Your task to perform on an android device: turn on javascript in the chrome app Image 0: 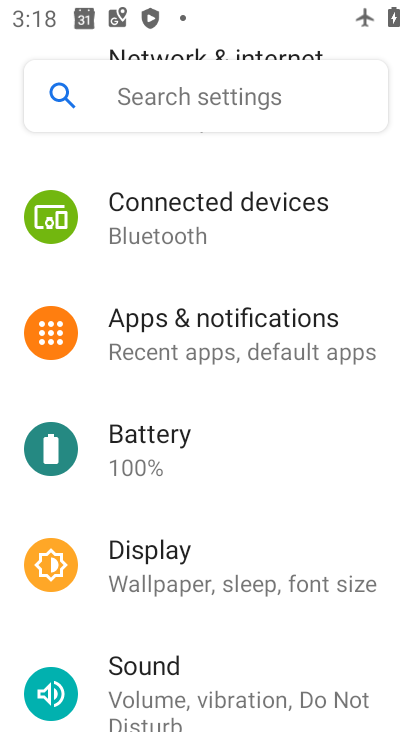
Step 0: press home button
Your task to perform on an android device: turn on javascript in the chrome app Image 1: 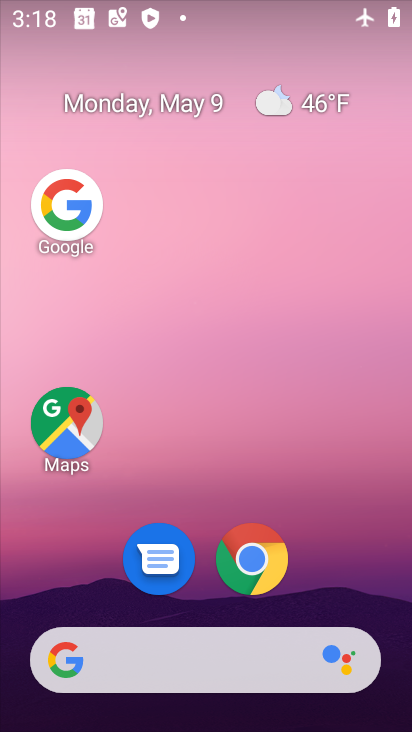
Step 1: click (256, 556)
Your task to perform on an android device: turn on javascript in the chrome app Image 2: 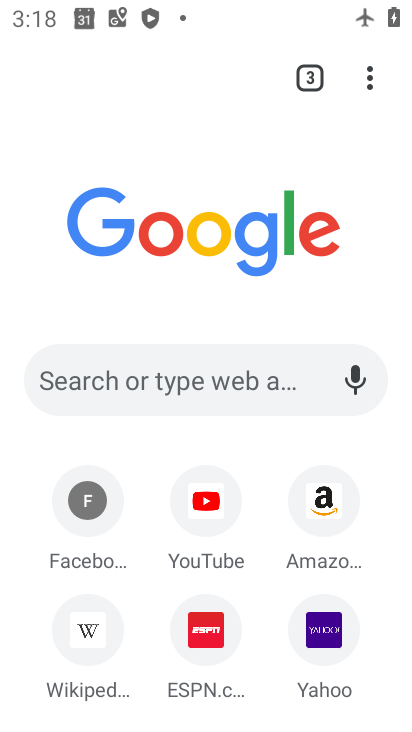
Step 2: click (372, 74)
Your task to perform on an android device: turn on javascript in the chrome app Image 3: 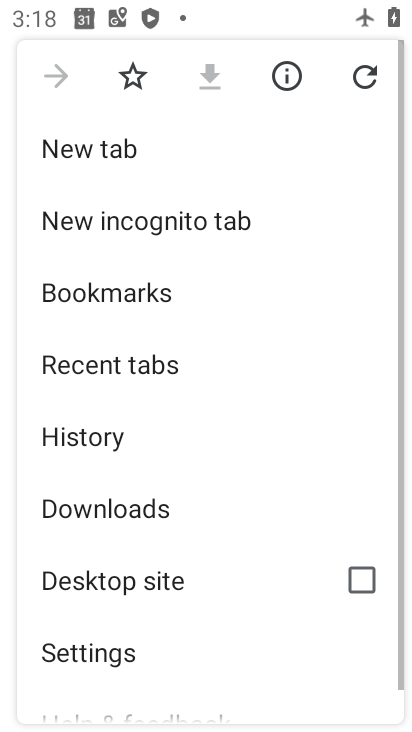
Step 3: drag from (238, 541) to (254, 189)
Your task to perform on an android device: turn on javascript in the chrome app Image 4: 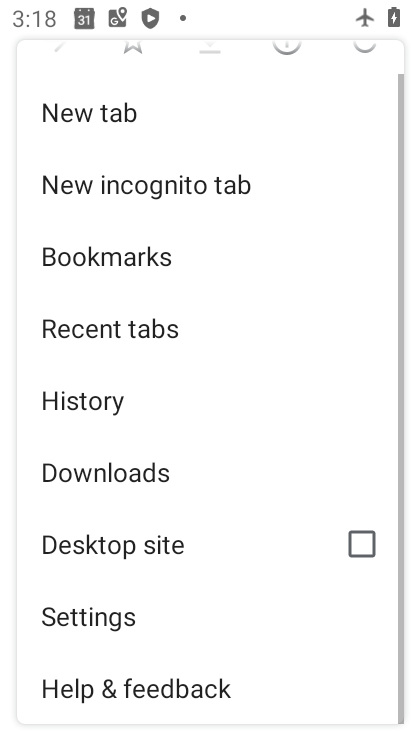
Step 4: click (165, 604)
Your task to perform on an android device: turn on javascript in the chrome app Image 5: 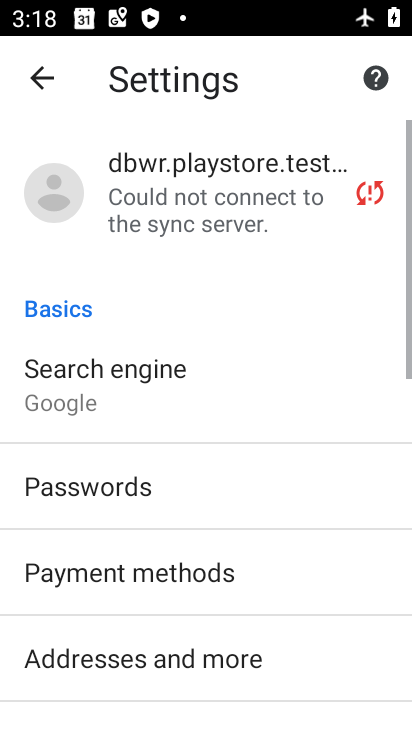
Step 5: drag from (191, 558) to (239, 118)
Your task to perform on an android device: turn on javascript in the chrome app Image 6: 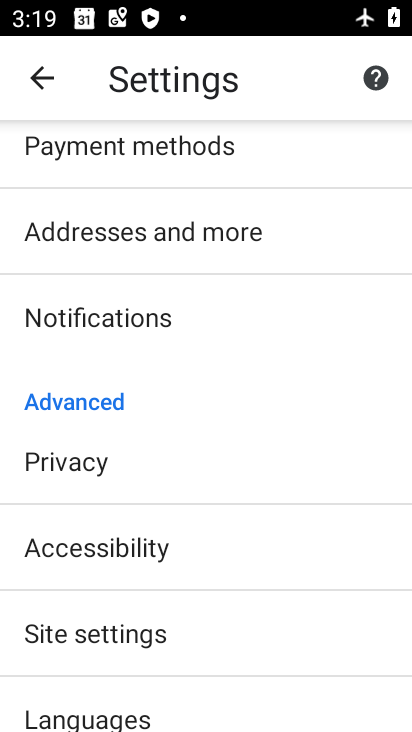
Step 6: click (240, 650)
Your task to perform on an android device: turn on javascript in the chrome app Image 7: 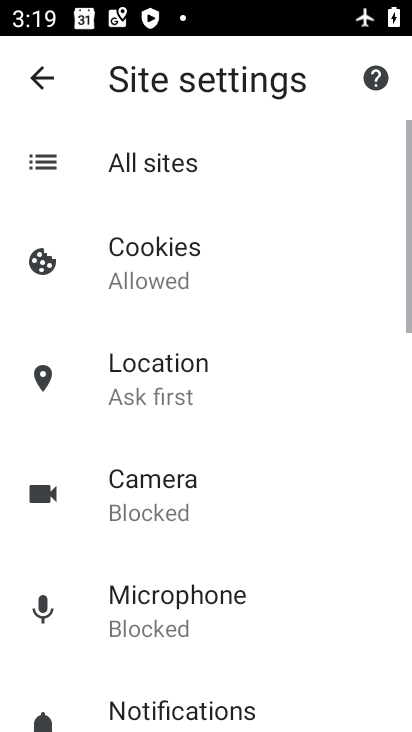
Step 7: drag from (240, 650) to (318, 255)
Your task to perform on an android device: turn on javascript in the chrome app Image 8: 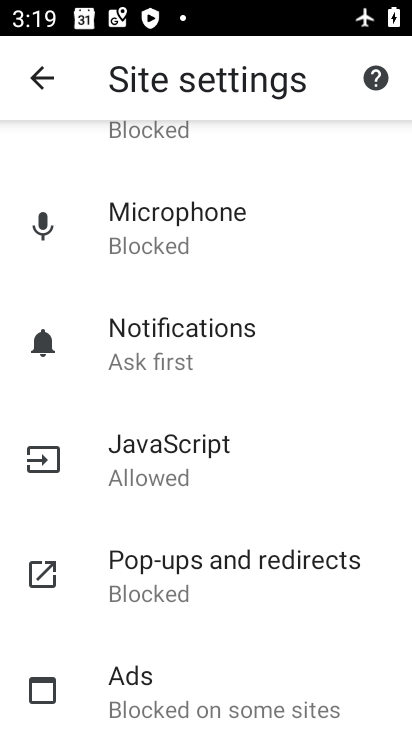
Step 8: drag from (290, 643) to (319, 277)
Your task to perform on an android device: turn on javascript in the chrome app Image 9: 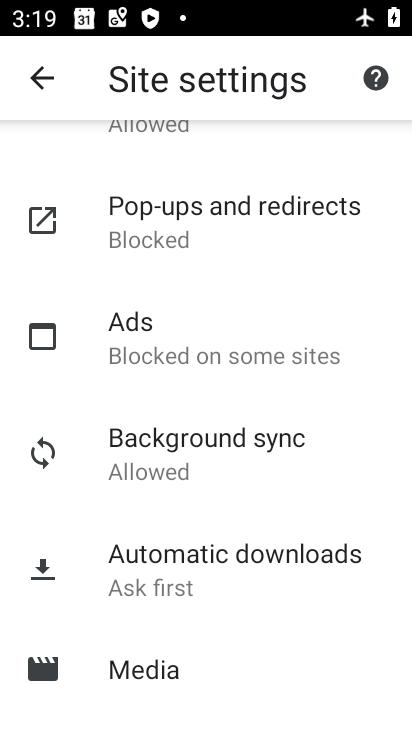
Step 9: click (234, 139)
Your task to perform on an android device: turn on javascript in the chrome app Image 10: 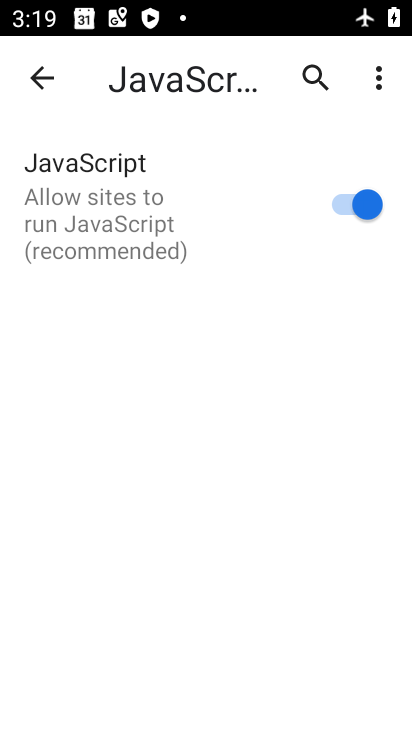
Step 10: task complete